Your task to perform on an android device: What's the weather? Image 0: 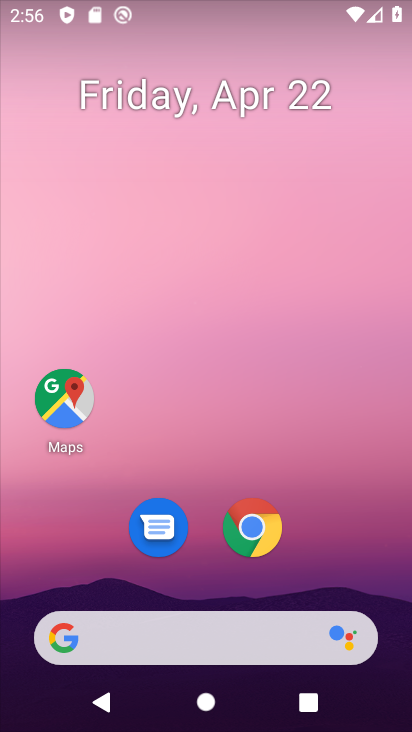
Step 0: click (245, 642)
Your task to perform on an android device: What's the weather? Image 1: 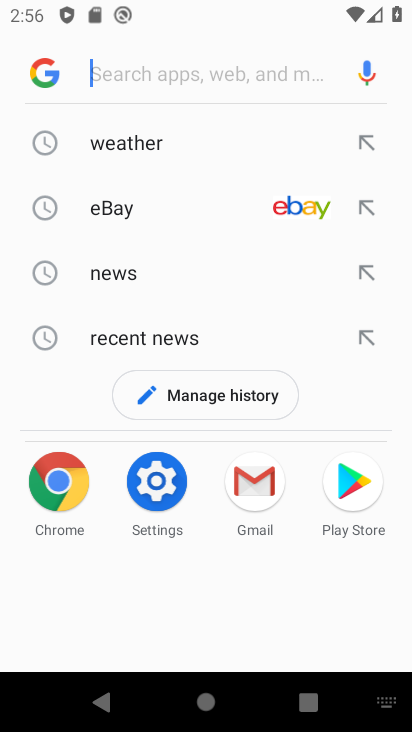
Step 1: click (190, 156)
Your task to perform on an android device: What's the weather? Image 2: 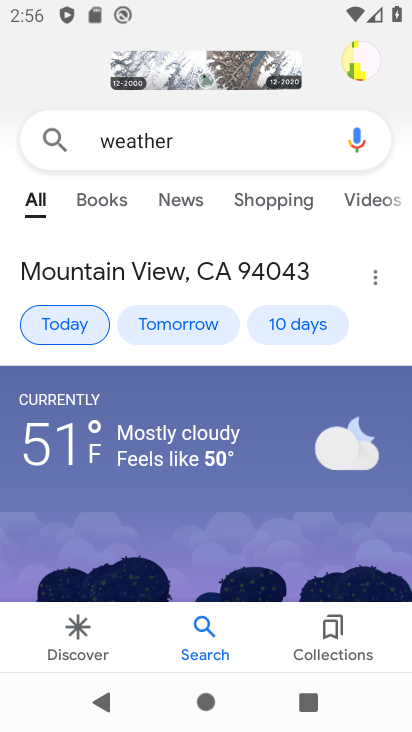
Step 2: task complete